Your task to perform on an android device: Show me popular videos on Youtube Image 0: 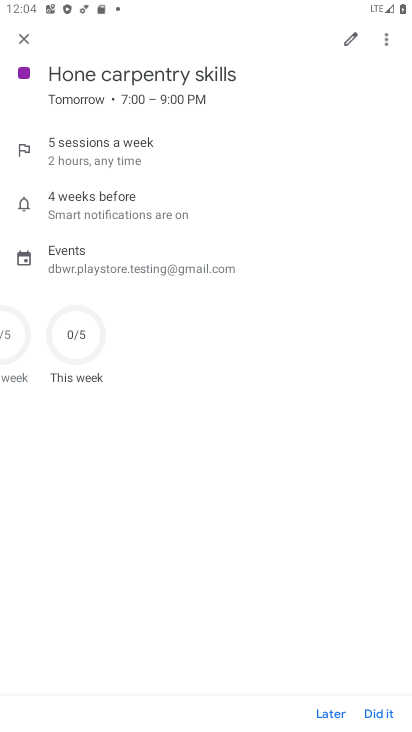
Step 0: press home button
Your task to perform on an android device: Show me popular videos on Youtube Image 1: 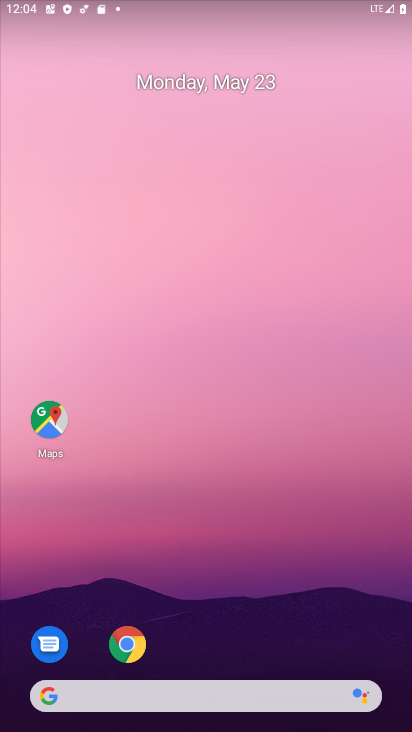
Step 1: drag from (362, 617) to (293, 41)
Your task to perform on an android device: Show me popular videos on Youtube Image 2: 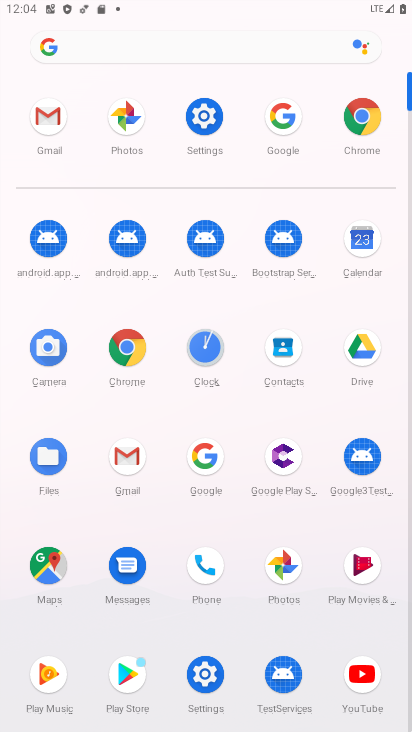
Step 2: click (361, 677)
Your task to perform on an android device: Show me popular videos on Youtube Image 3: 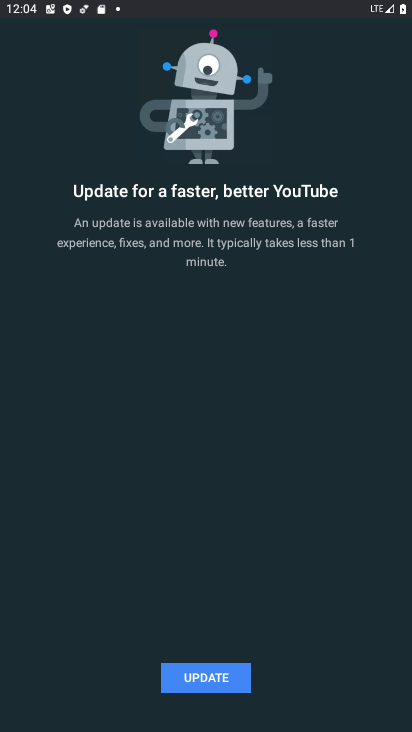
Step 3: click (166, 671)
Your task to perform on an android device: Show me popular videos on Youtube Image 4: 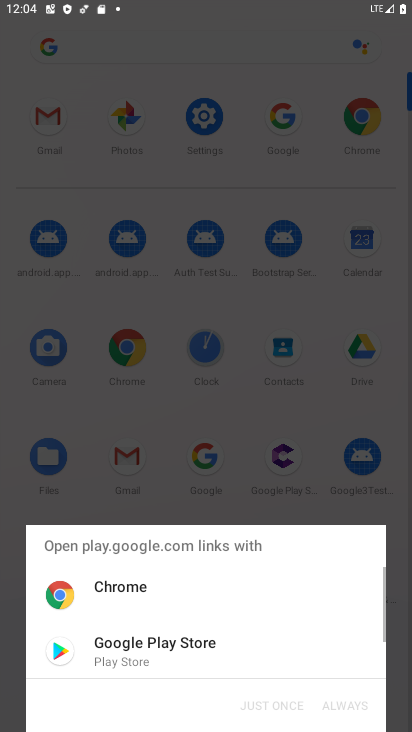
Step 4: click (159, 653)
Your task to perform on an android device: Show me popular videos on Youtube Image 5: 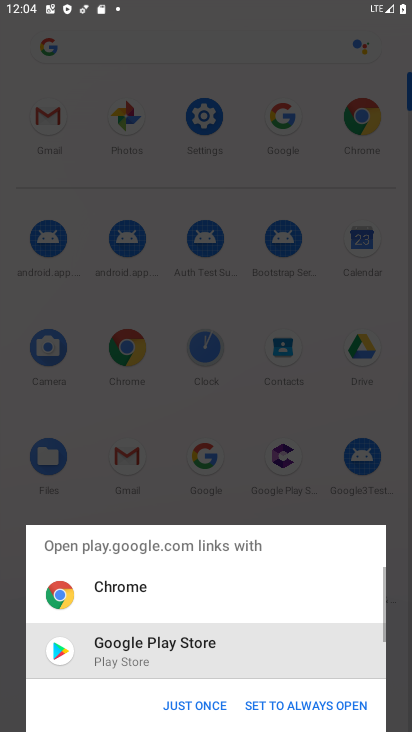
Step 5: click (177, 706)
Your task to perform on an android device: Show me popular videos on Youtube Image 6: 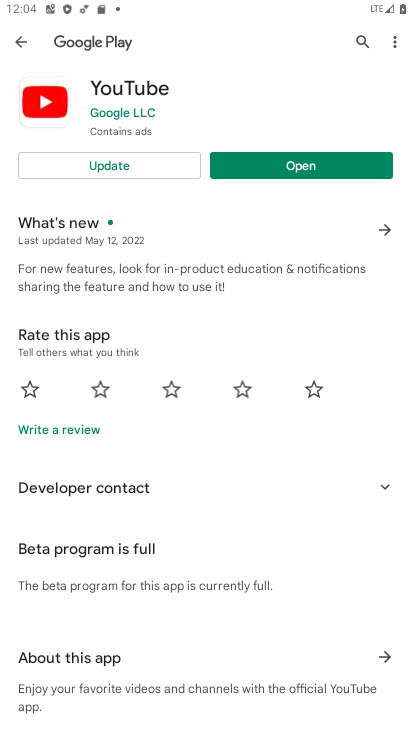
Step 6: click (134, 155)
Your task to perform on an android device: Show me popular videos on Youtube Image 7: 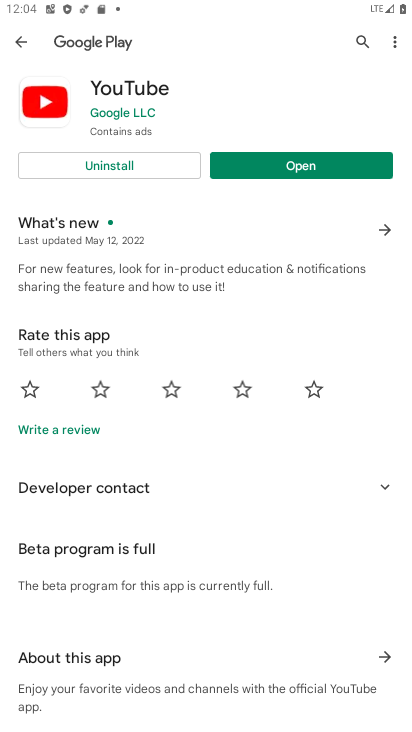
Step 7: click (320, 172)
Your task to perform on an android device: Show me popular videos on Youtube Image 8: 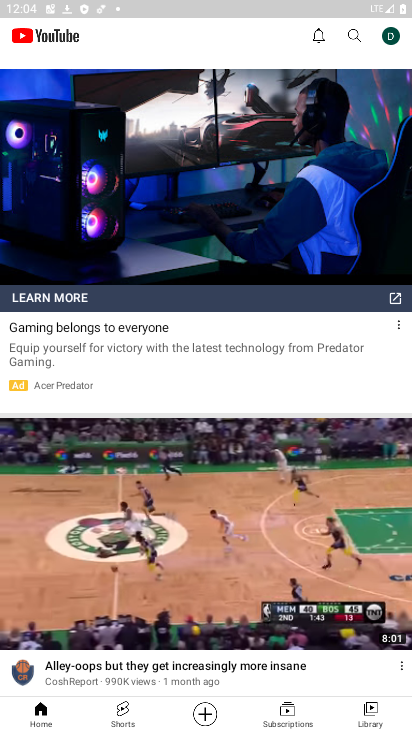
Step 8: task complete